Your task to perform on an android device: Open battery settings Image 0: 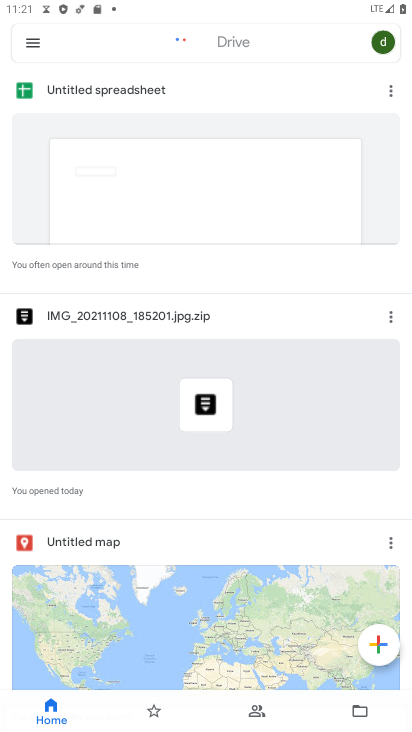
Step 0: press back button
Your task to perform on an android device: Open battery settings Image 1: 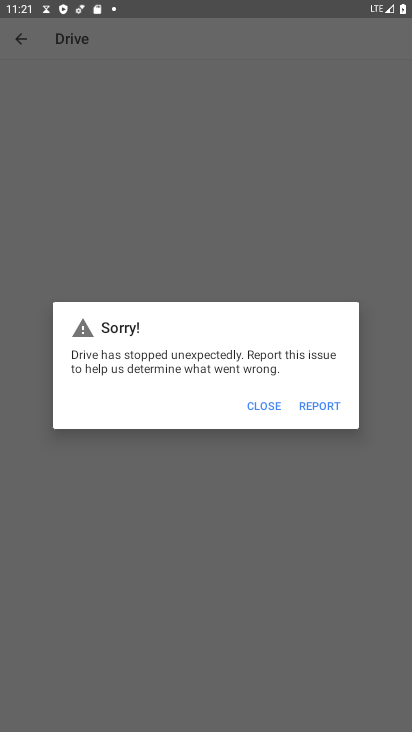
Step 1: press home button
Your task to perform on an android device: Open battery settings Image 2: 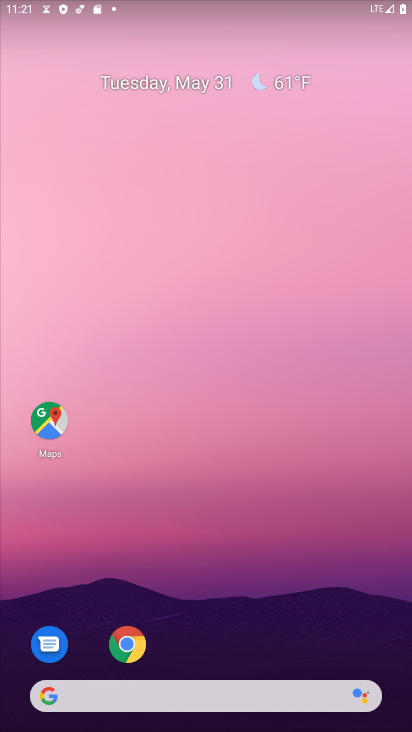
Step 2: drag from (250, 599) to (265, 138)
Your task to perform on an android device: Open battery settings Image 3: 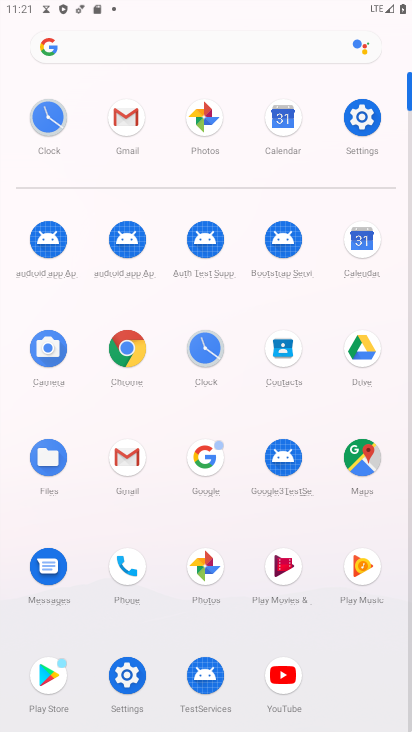
Step 3: click (361, 119)
Your task to perform on an android device: Open battery settings Image 4: 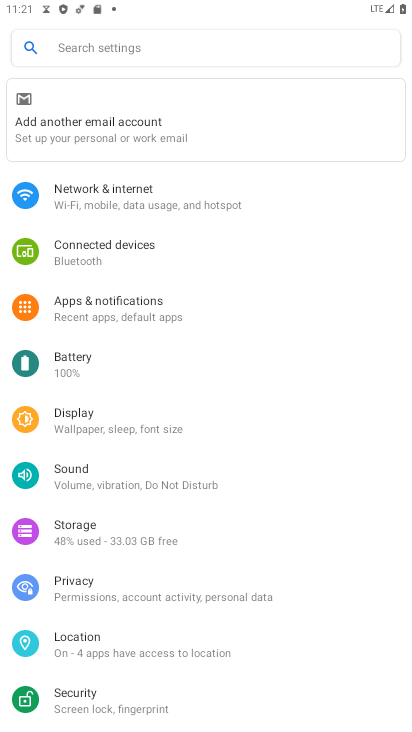
Step 4: click (68, 368)
Your task to perform on an android device: Open battery settings Image 5: 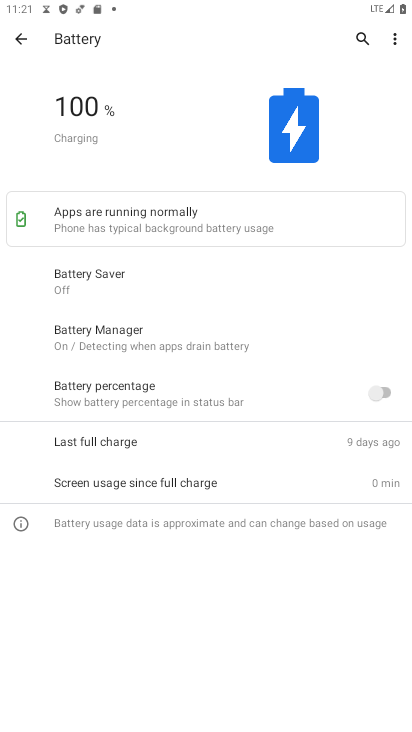
Step 5: task complete